Your task to perform on an android device: What is the speed of a train? Image 0: 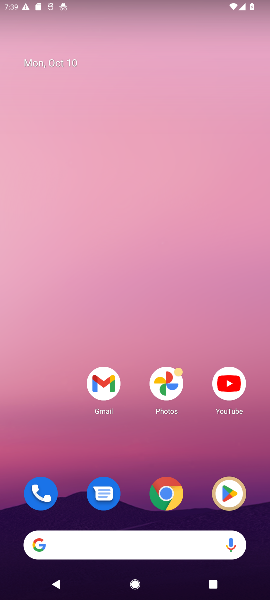
Step 0: drag from (143, 499) to (117, 42)
Your task to perform on an android device: What is the speed of a train? Image 1: 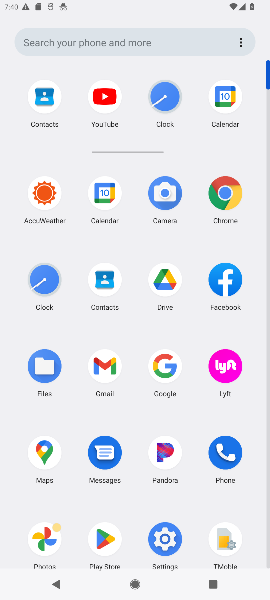
Step 1: click (161, 369)
Your task to perform on an android device: What is the speed of a train? Image 2: 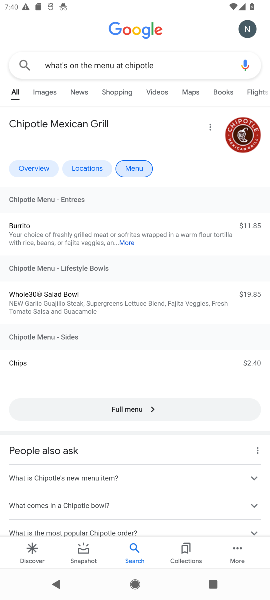
Step 2: click (179, 61)
Your task to perform on an android device: What is the speed of a train? Image 3: 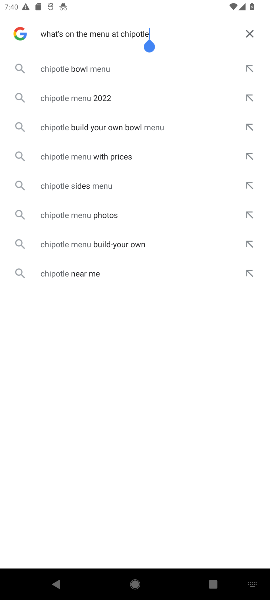
Step 3: click (249, 37)
Your task to perform on an android device: What is the speed of a train? Image 4: 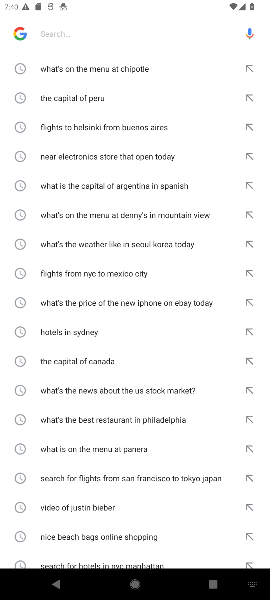
Step 4: click (113, 25)
Your task to perform on an android device: What is the speed of a train? Image 5: 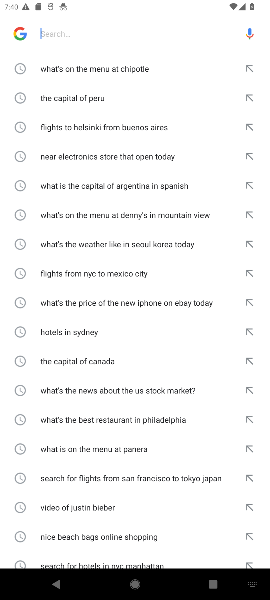
Step 5: type "What is the speed of a train?"
Your task to perform on an android device: What is the speed of a train? Image 6: 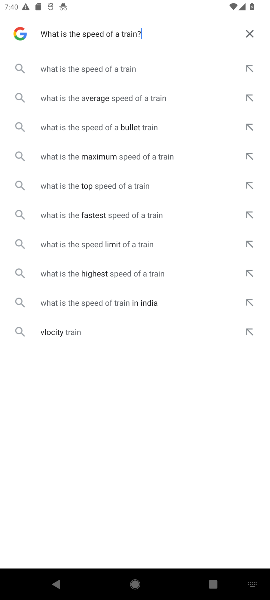
Step 6: click (96, 65)
Your task to perform on an android device: What is the speed of a train? Image 7: 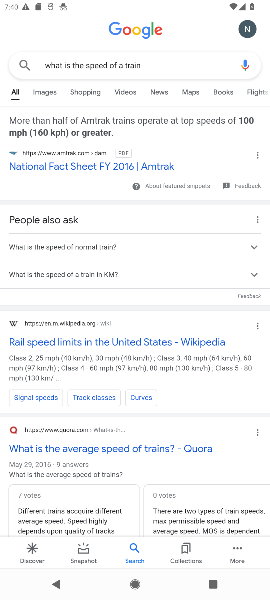
Step 7: task complete